Your task to perform on an android device: turn on location history Image 0: 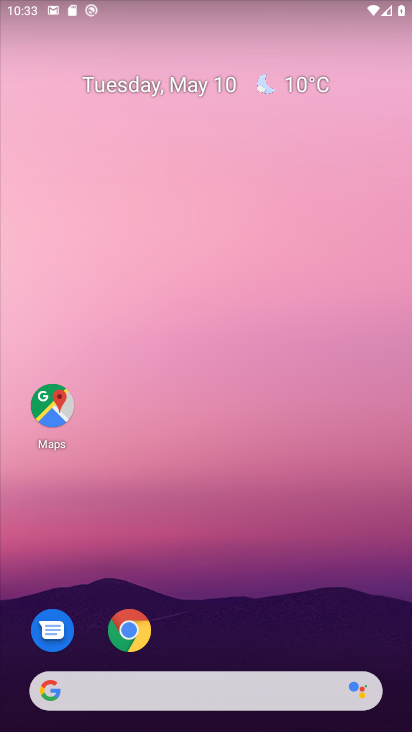
Step 0: drag from (278, 541) to (292, 27)
Your task to perform on an android device: turn on location history Image 1: 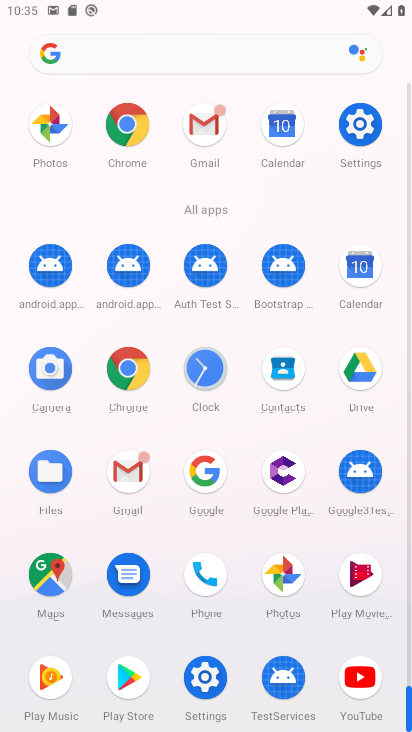
Step 1: click (364, 122)
Your task to perform on an android device: turn on location history Image 2: 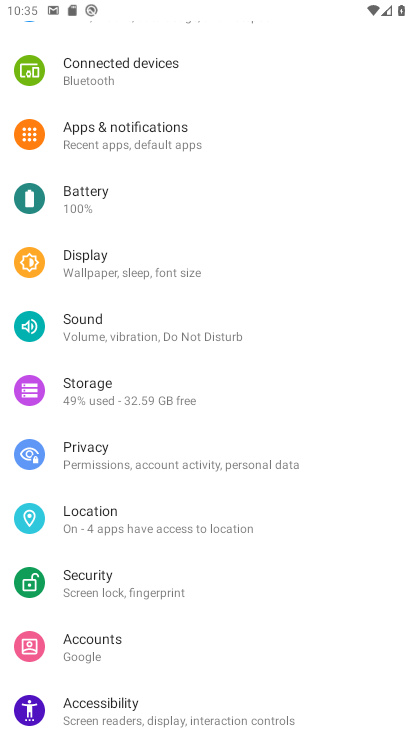
Step 2: click (149, 523)
Your task to perform on an android device: turn on location history Image 3: 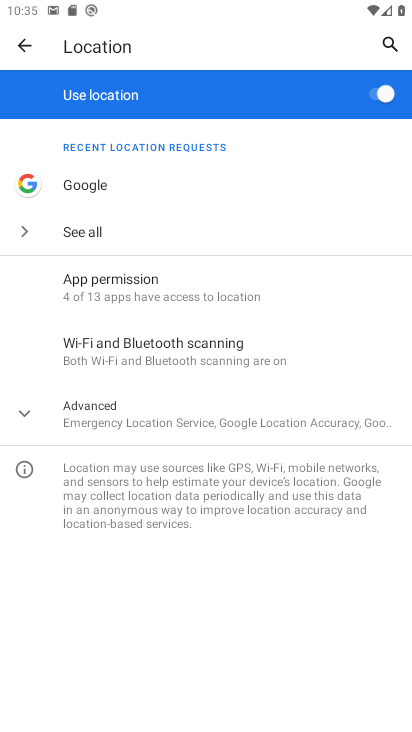
Step 3: click (185, 417)
Your task to perform on an android device: turn on location history Image 4: 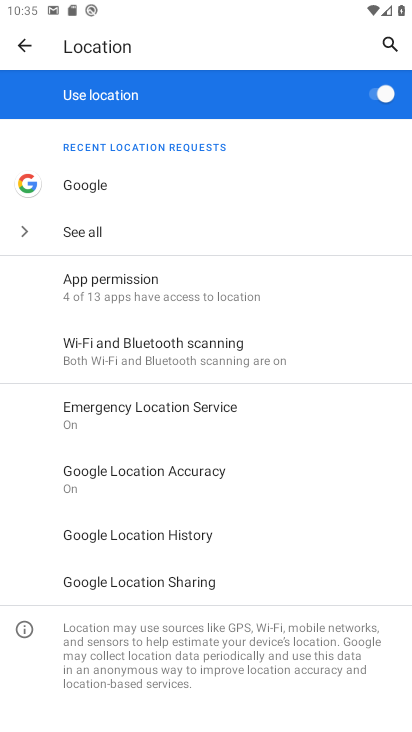
Step 4: click (180, 536)
Your task to perform on an android device: turn on location history Image 5: 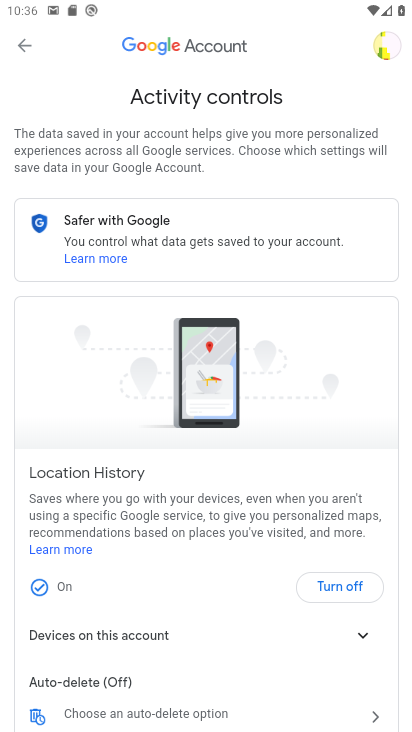
Step 5: task complete